Your task to perform on an android device: Go to Google Image 0: 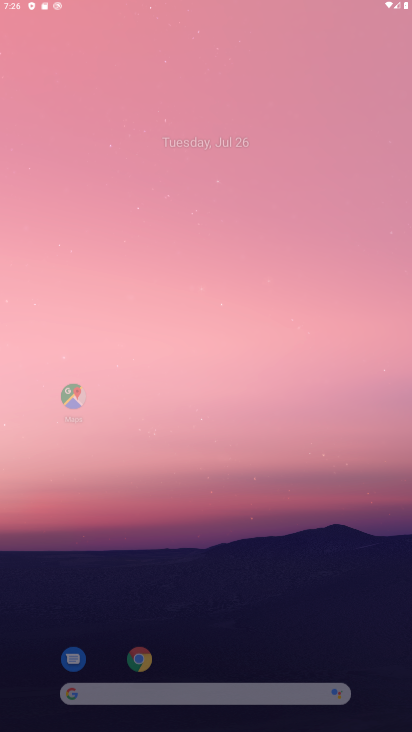
Step 0: click (205, 3)
Your task to perform on an android device: Go to Google Image 1: 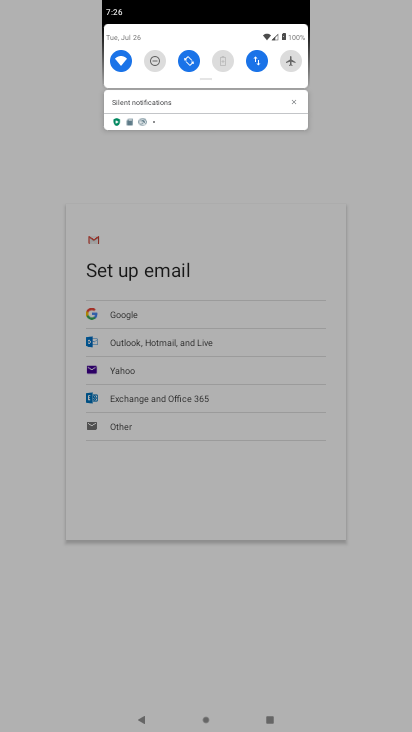
Step 1: press home button
Your task to perform on an android device: Go to Google Image 2: 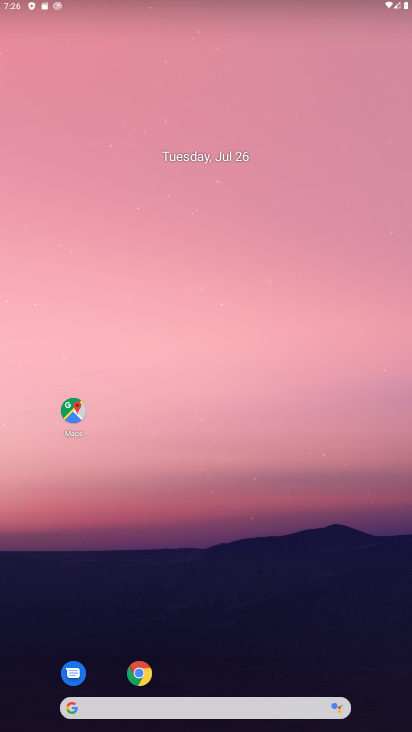
Step 2: drag from (328, 607) to (202, 80)
Your task to perform on an android device: Go to Google Image 3: 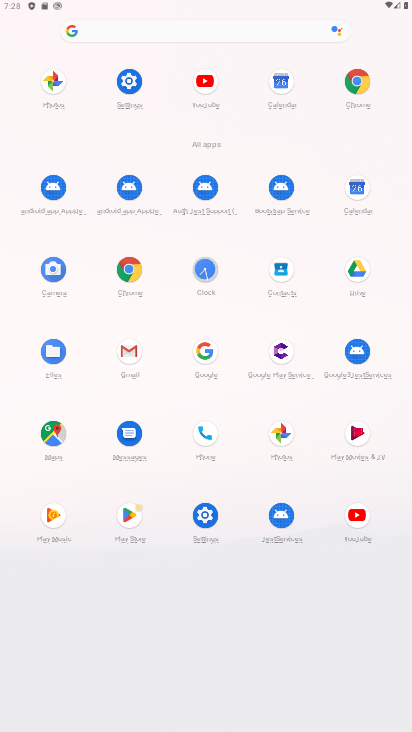
Step 3: click (204, 346)
Your task to perform on an android device: Go to Google Image 4: 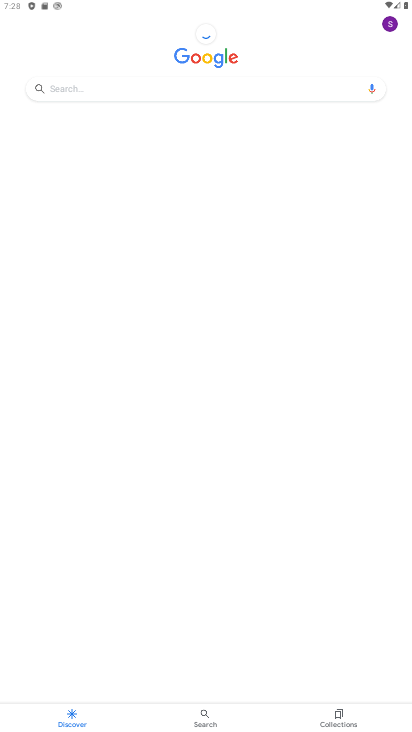
Step 4: task complete